Your task to perform on an android device: check the backup settings in the google photos Image 0: 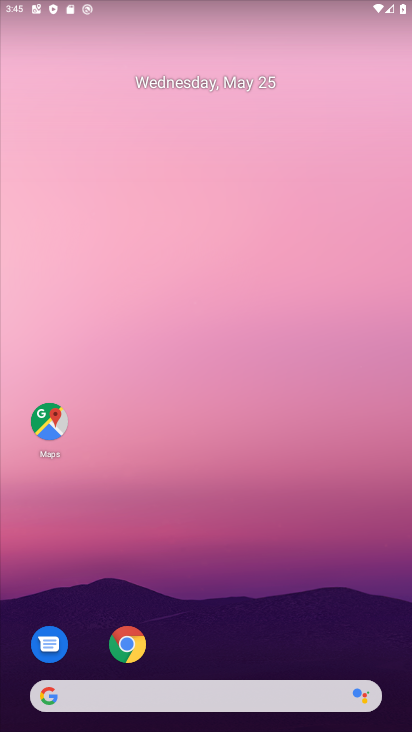
Step 0: drag from (299, 655) to (345, 3)
Your task to perform on an android device: check the backup settings in the google photos Image 1: 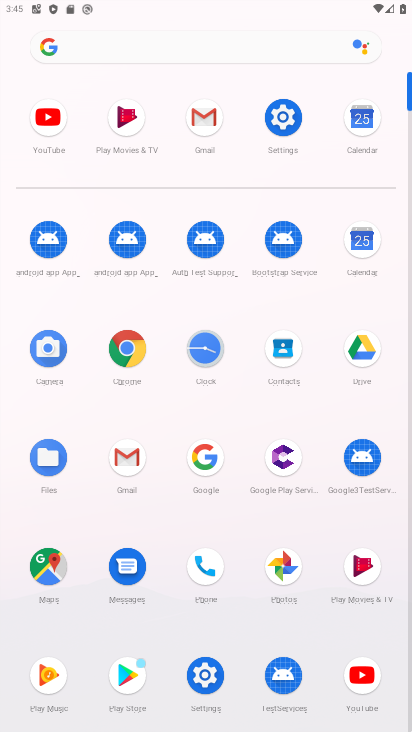
Step 1: click (269, 568)
Your task to perform on an android device: check the backup settings in the google photos Image 2: 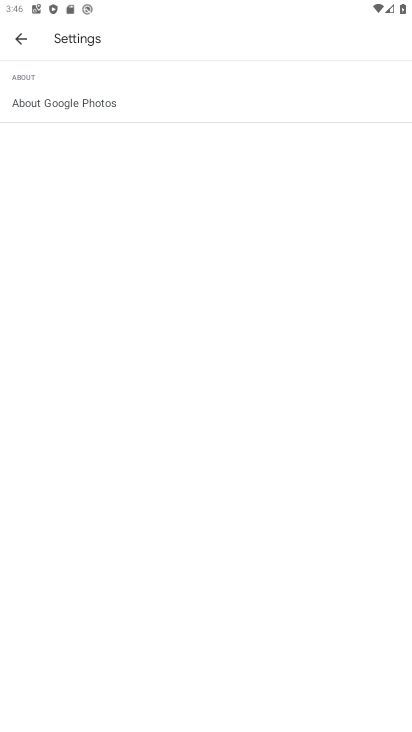
Step 2: click (18, 30)
Your task to perform on an android device: check the backup settings in the google photos Image 3: 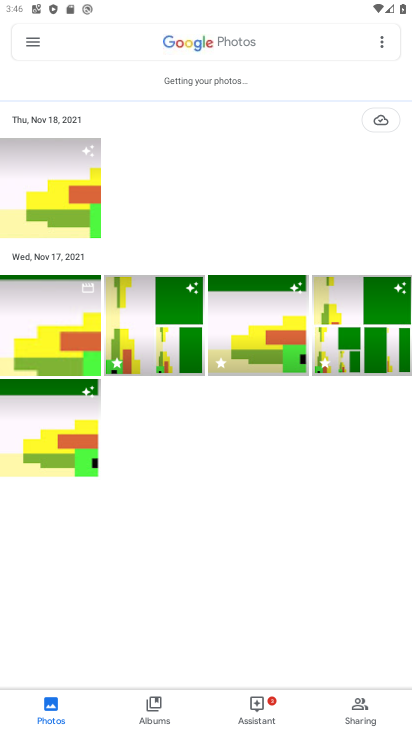
Step 3: click (35, 40)
Your task to perform on an android device: check the backup settings in the google photos Image 4: 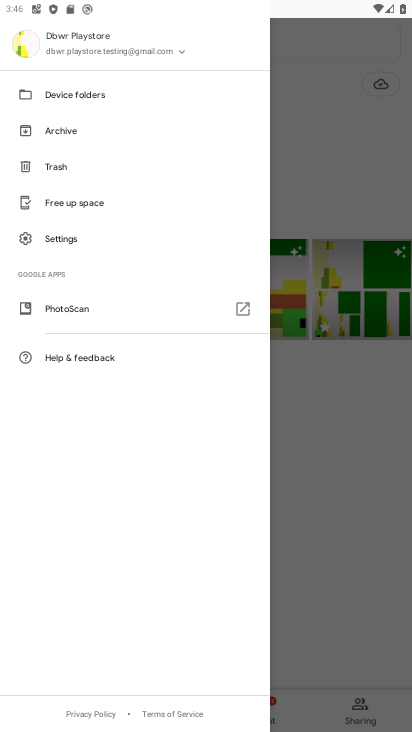
Step 4: click (76, 244)
Your task to perform on an android device: check the backup settings in the google photos Image 5: 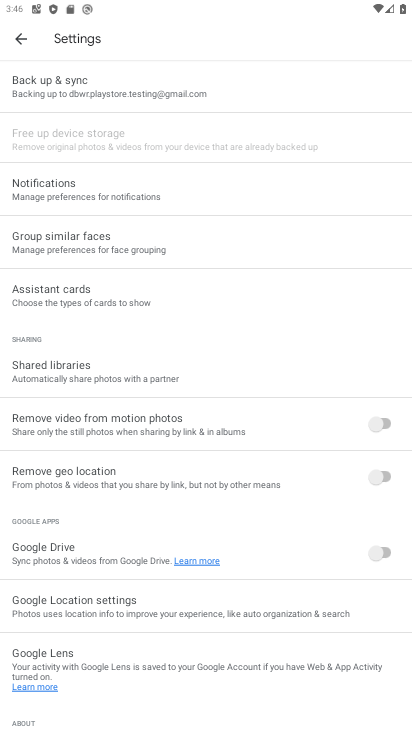
Step 5: click (55, 95)
Your task to perform on an android device: check the backup settings in the google photos Image 6: 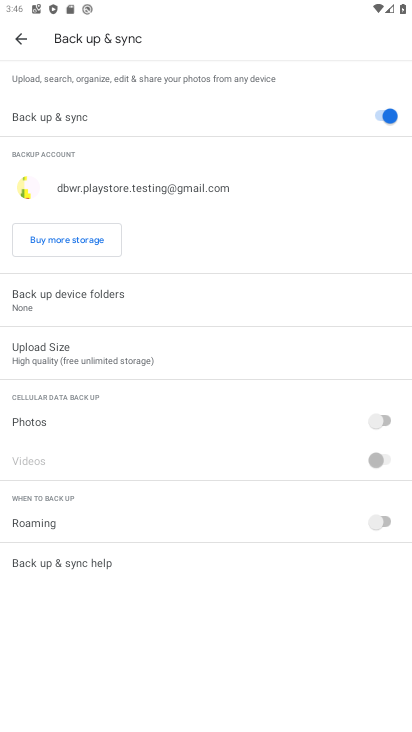
Step 6: task complete